Your task to perform on an android device: Open Chrome and go to settings Image 0: 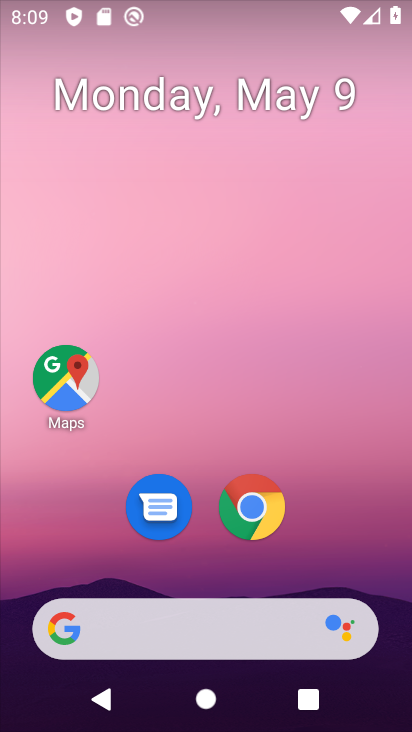
Step 0: drag from (200, 575) to (143, 0)
Your task to perform on an android device: Open Chrome and go to settings Image 1: 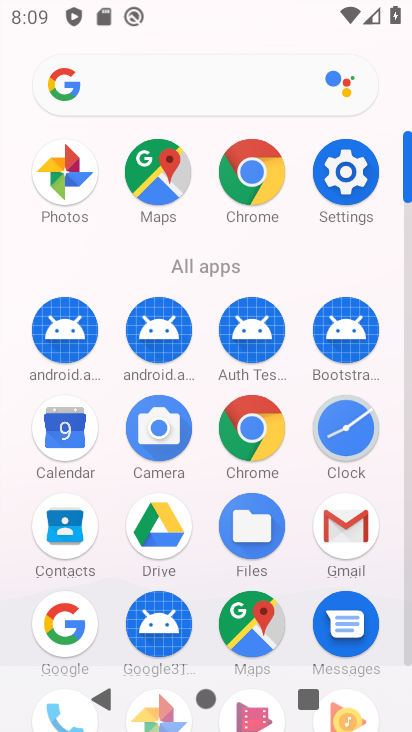
Step 1: click (256, 431)
Your task to perform on an android device: Open Chrome and go to settings Image 2: 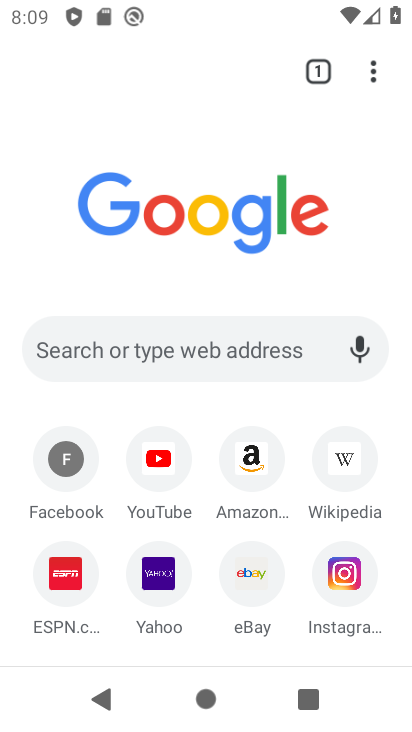
Step 2: click (370, 76)
Your task to perform on an android device: Open Chrome and go to settings Image 3: 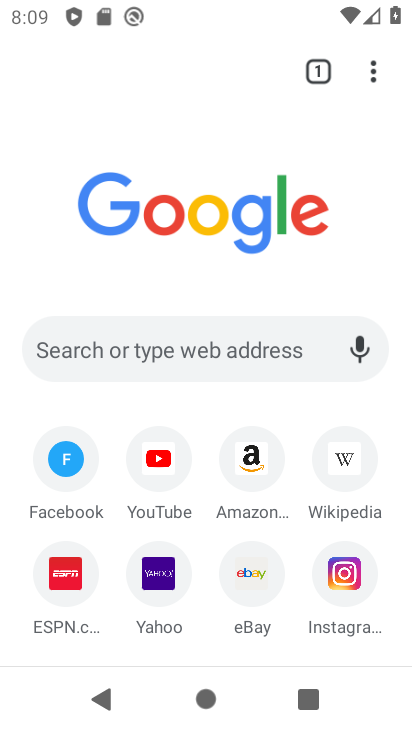
Step 3: task complete